Your task to perform on an android device: turn pop-ups on in chrome Image 0: 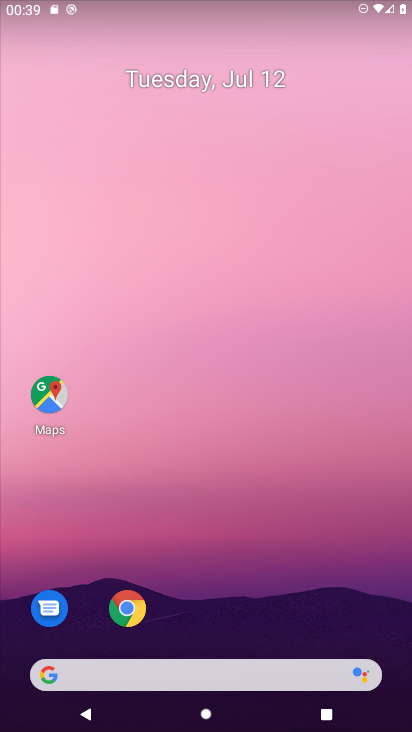
Step 0: click (122, 594)
Your task to perform on an android device: turn pop-ups on in chrome Image 1: 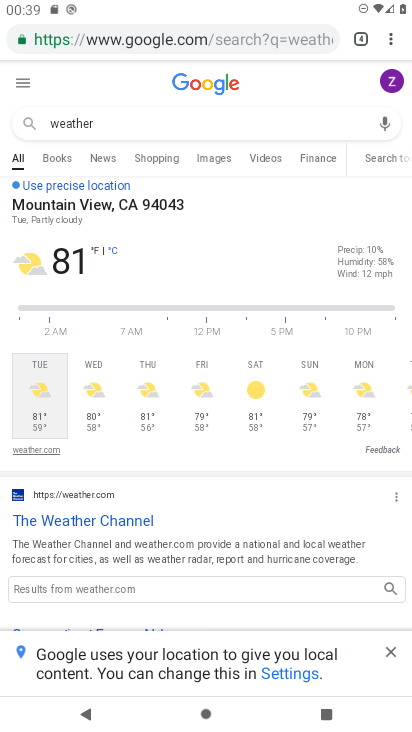
Step 1: drag from (389, 34) to (254, 431)
Your task to perform on an android device: turn pop-ups on in chrome Image 2: 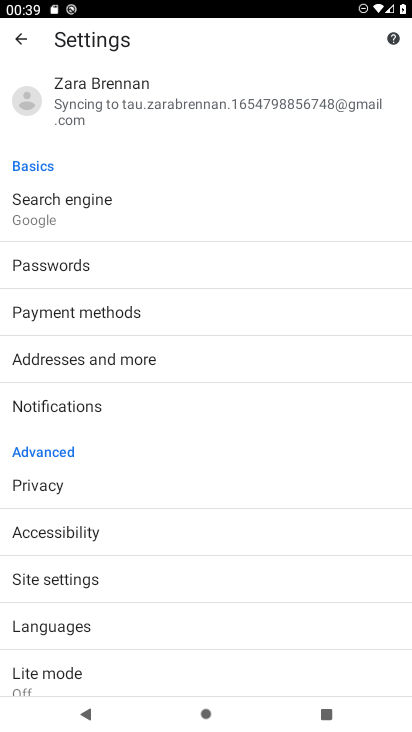
Step 2: drag from (166, 578) to (142, 279)
Your task to perform on an android device: turn pop-ups on in chrome Image 3: 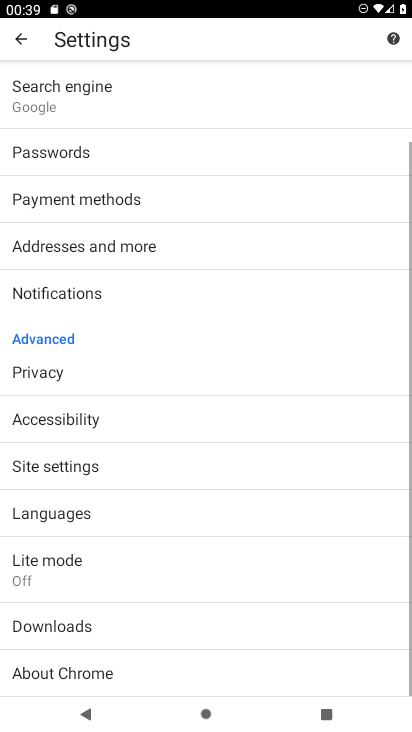
Step 3: click (55, 454)
Your task to perform on an android device: turn pop-ups on in chrome Image 4: 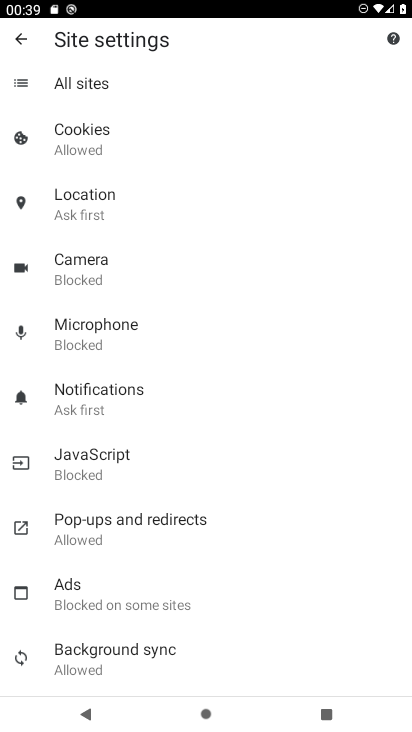
Step 4: click (107, 532)
Your task to perform on an android device: turn pop-ups on in chrome Image 5: 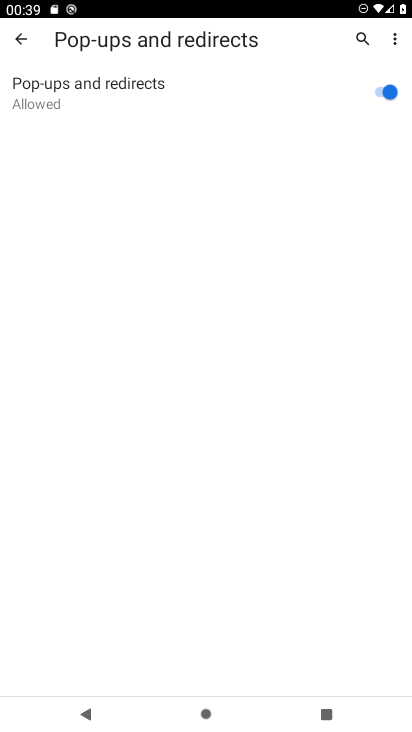
Step 5: task complete